Your task to perform on an android device: Check the news Image 0: 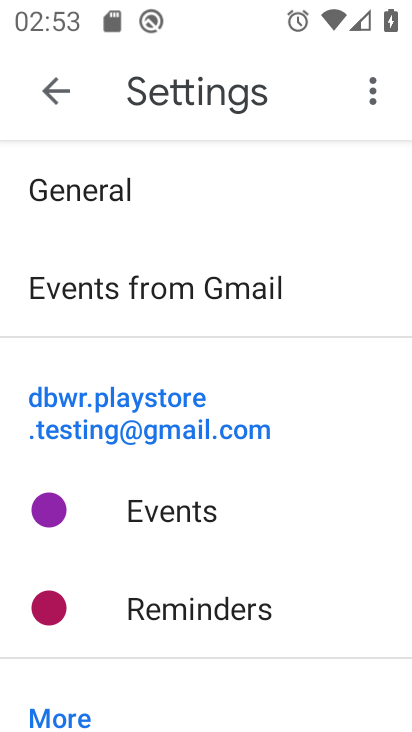
Step 0: press home button
Your task to perform on an android device: Check the news Image 1: 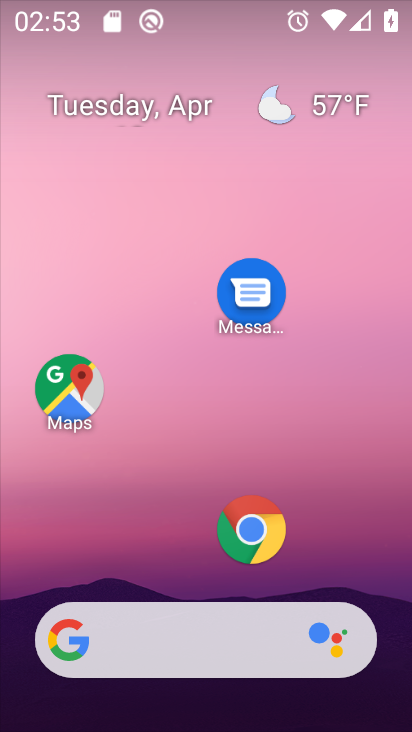
Step 1: drag from (174, 542) to (180, 137)
Your task to perform on an android device: Check the news Image 2: 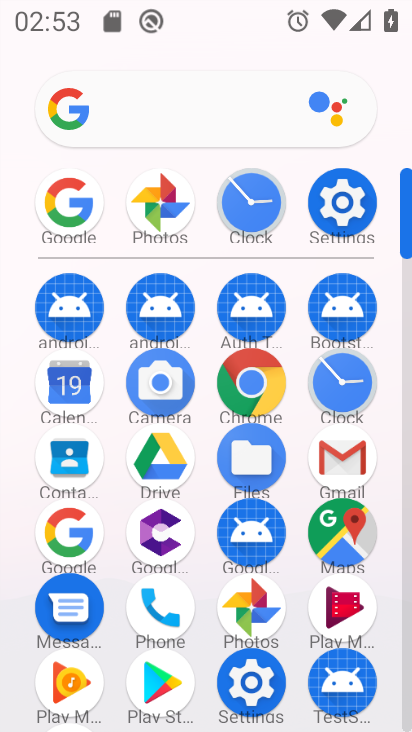
Step 2: click (61, 200)
Your task to perform on an android device: Check the news Image 3: 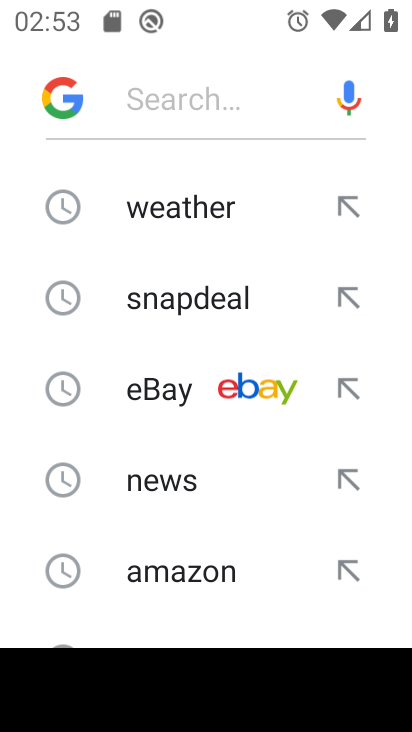
Step 3: click (151, 484)
Your task to perform on an android device: Check the news Image 4: 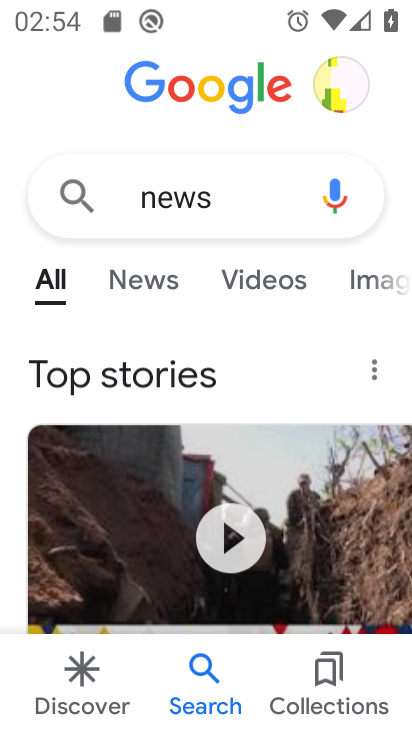
Step 4: task complete